Your task to perform on an android device: open the mobile data screen to see how much data has been used Image 0: 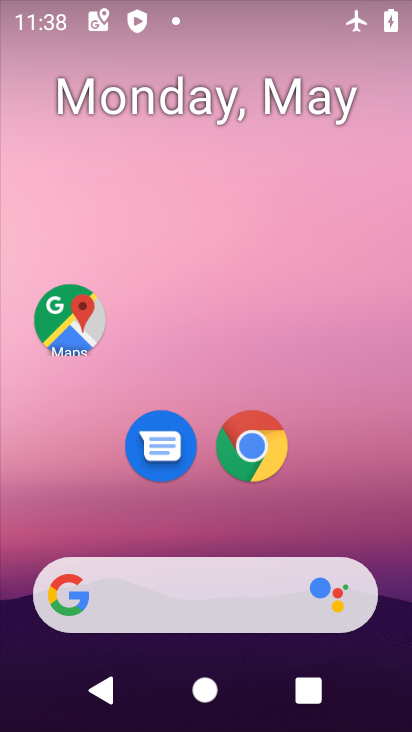
Step 0: drag from (325, 502) to (271, 94)
Your task to perform on an android device: open the mobile data screen to see how much data has been used Image 1: 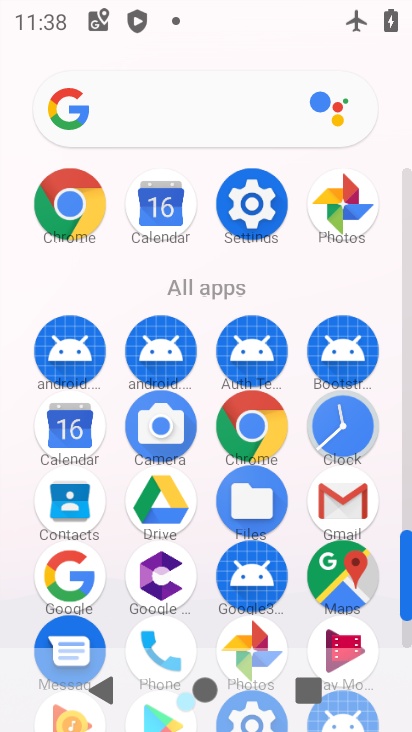
Step 1: click (250, 204)
Your task to perform on an android device: open the mobile data screen to see how much data has been used Image 2: 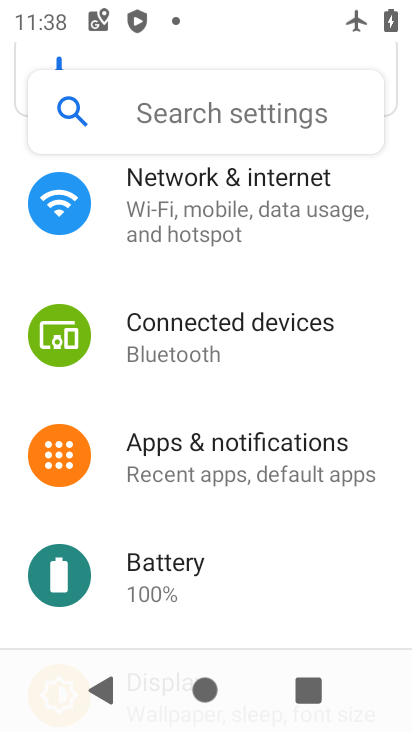
Step 2: click (230, 175)
Your task to perform on an android device: open the mobile data screen to see how much data has been used Image 3: 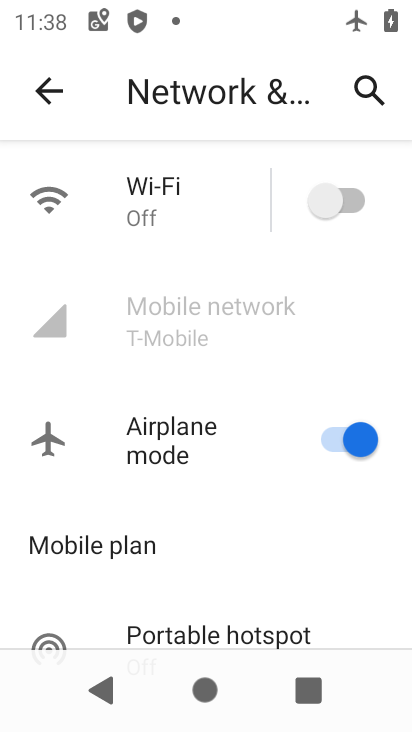
Step 3: task complete